Your task to perform on an android device: make emails show in primary in the gmail app Image 0: 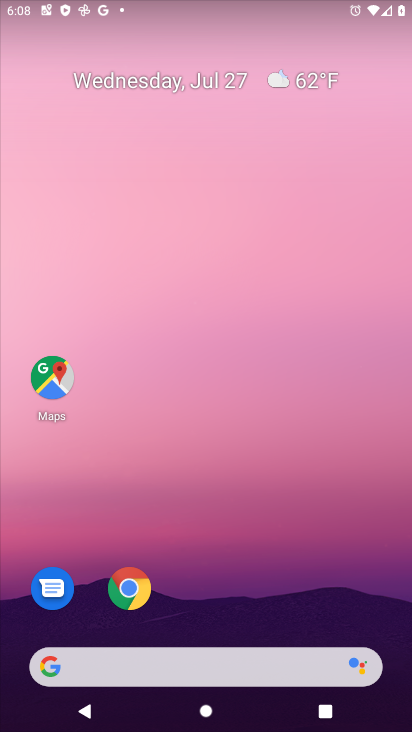
Step 0: drag from (232, 617) to (194, 203)
Your task to perform on an android device: make emails show in primary in the gmail app Image 1: 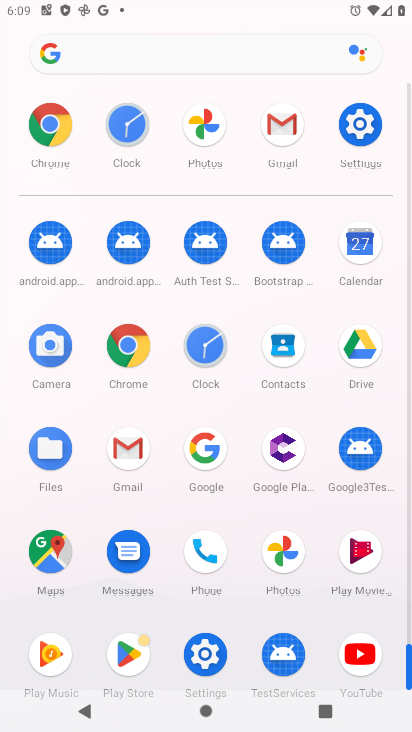
Step 1: click (131, 446)
Your task to perform on an android device: make emails show in primary in the gmail app Image 2: 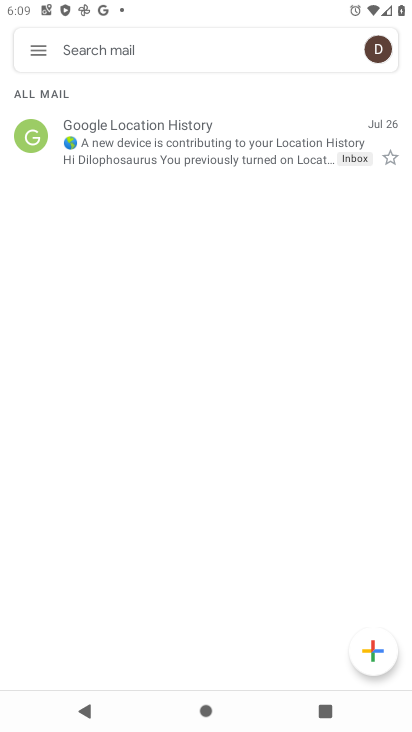
Step 2: click (40, 49)
Your task to perform on an android device: make emails show in primary in the gmail app Image 3: 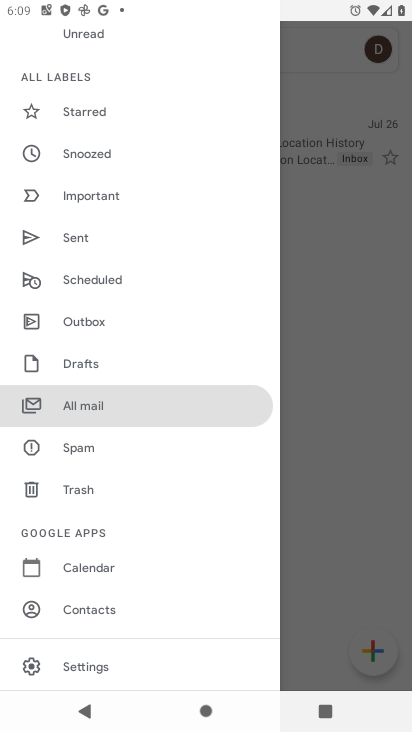
Step 3: click (72, 668)
Your task to perform on an android device: make emails show in primary in the gmail app Image 4: 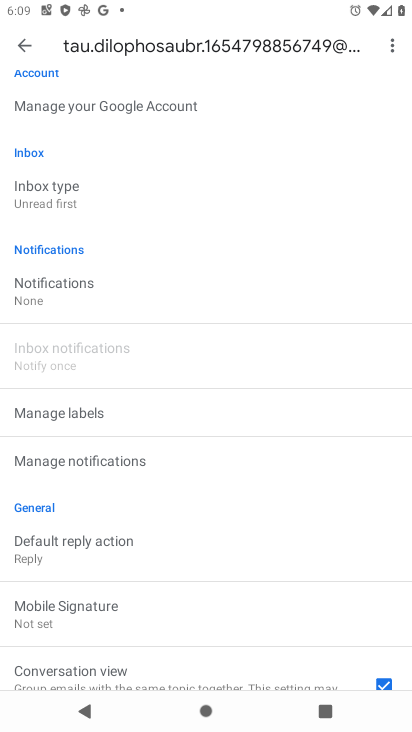
Step 4: click (62, 184)
Your task to perform on an android device: make emails show in primary in the gmail app Image 5: 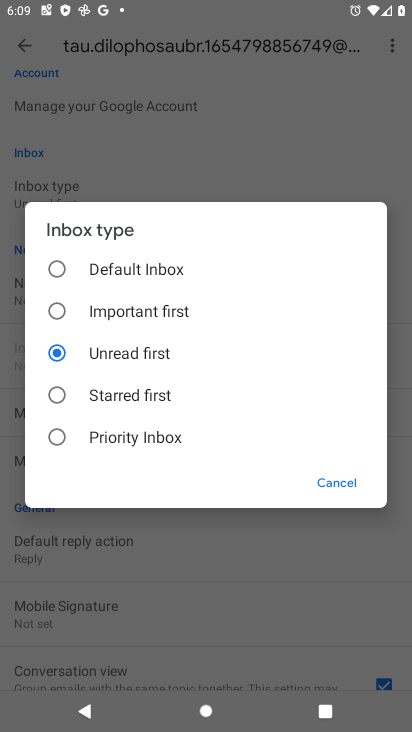
Step 5: click (59, 434)
Your task to perform on an android device: make emails show in primary in the gmail app Image 6: 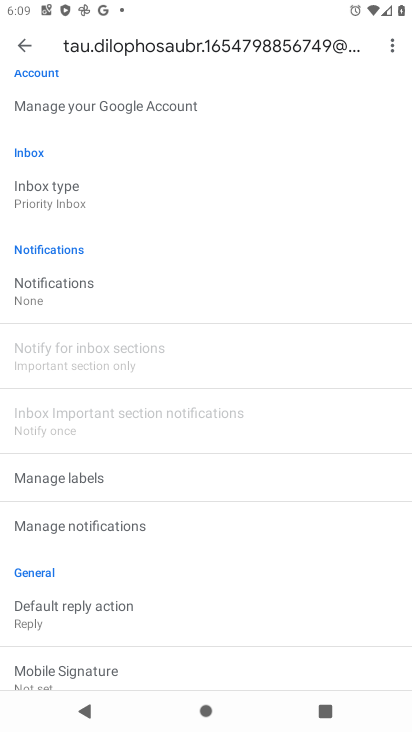
Step 6: task complete